Your task to perform on an android device: Open eBay Image 0: 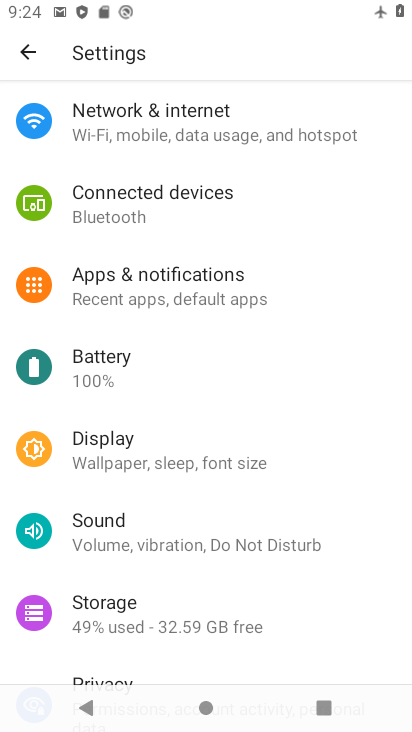
Step 0: press home button
Your task to perform on an android device: Open eBay Image 1: 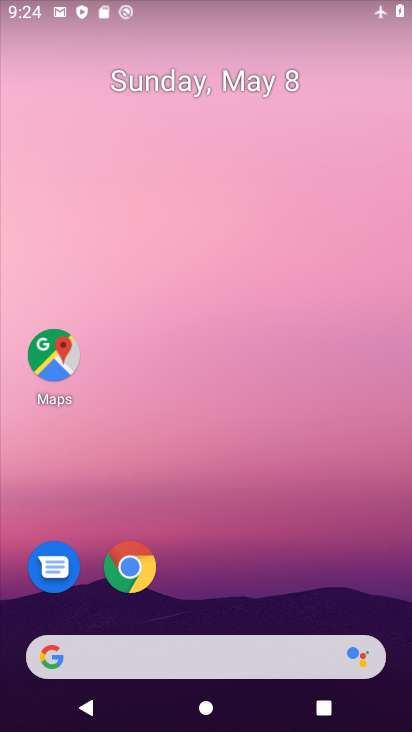
Step 1: click (134, 552)
Your task to perform on an android device: Open eBay Image 2: 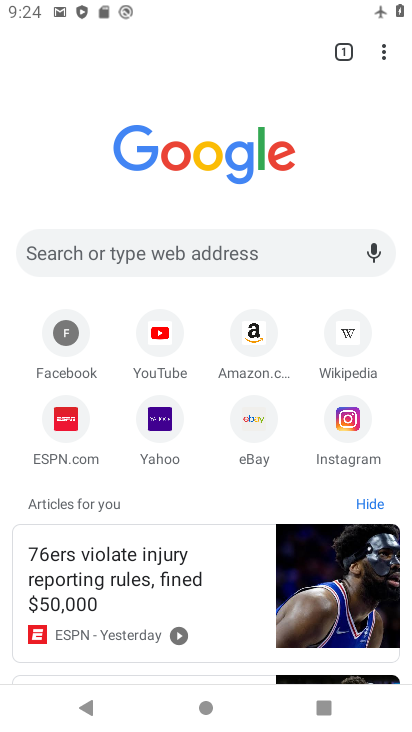
Step 2: click (269, 407)
Your task to perform on an android device: Open eBay Image 3: 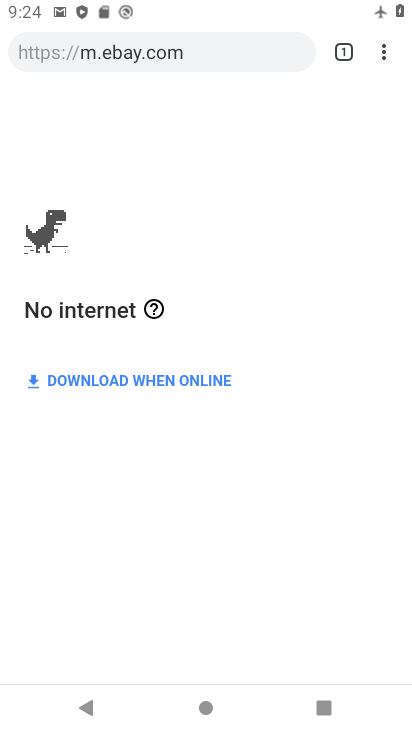
Step 3: task complete